Your task to perform on an android device: Find coffee shops on Maps Image 0: 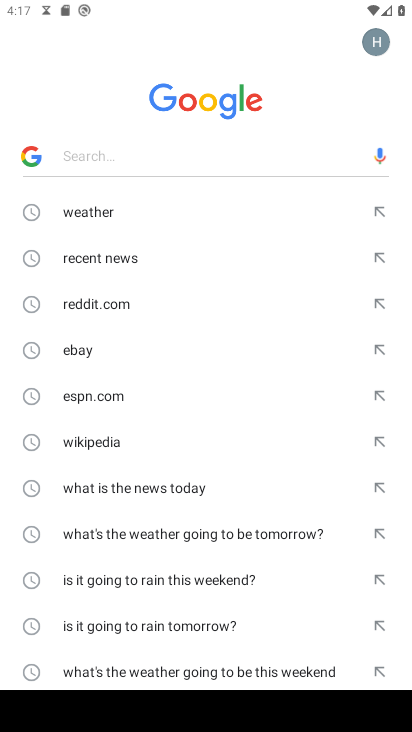
Step 0: press back button
Your task to perform on an android device: Find coffee shops on Maps Image 1: 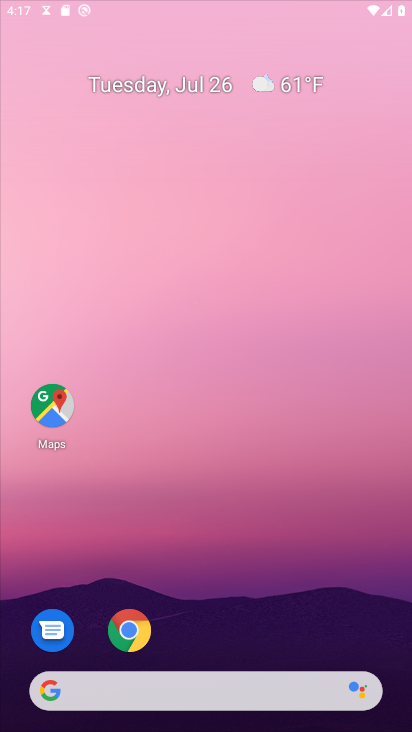
Step 1: press back button
Your task to perform on an android device: Find coffee shops on Maps Image 2: 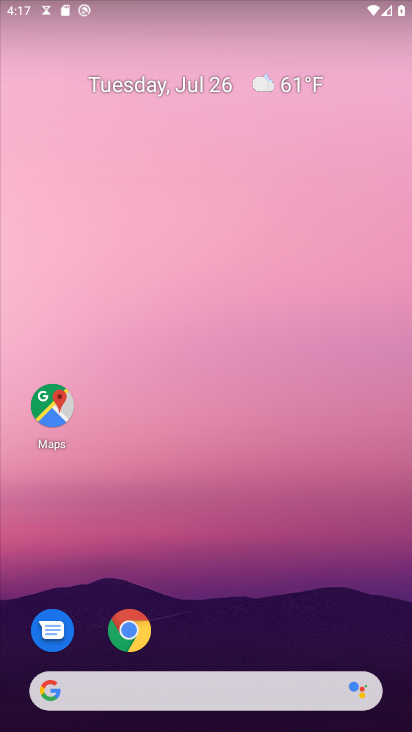
Step 2: drag from (267, 658) to (209, 149)
Your task to perform on an android device: Find coffee shops on Maps Image 3: 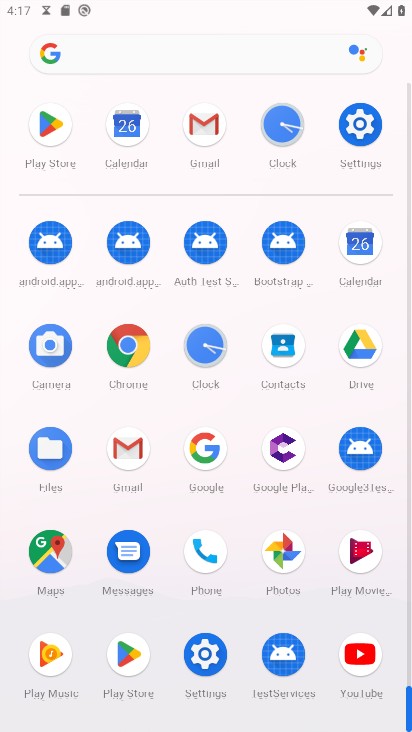
Step 3: drag from (221, 406) to (145, 112)
Your task to perform on an android device: Find coffee shops on Maps Image 4: 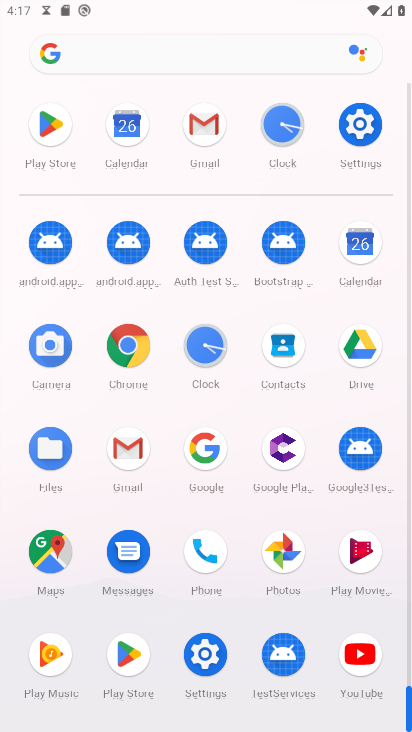
Step 4: click (49, 555)
Your task to perform on an android device: Find coffee shops on Maps Image 5: 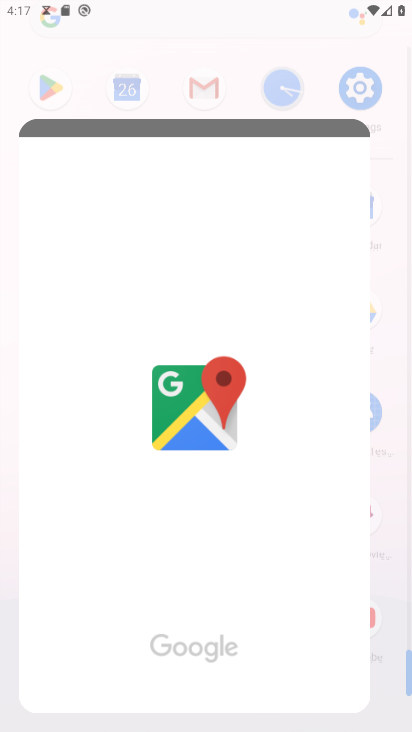
Step 5: click (46, 552)
Your task to perform on an android device: Find coffee shops on Maps Image 6: 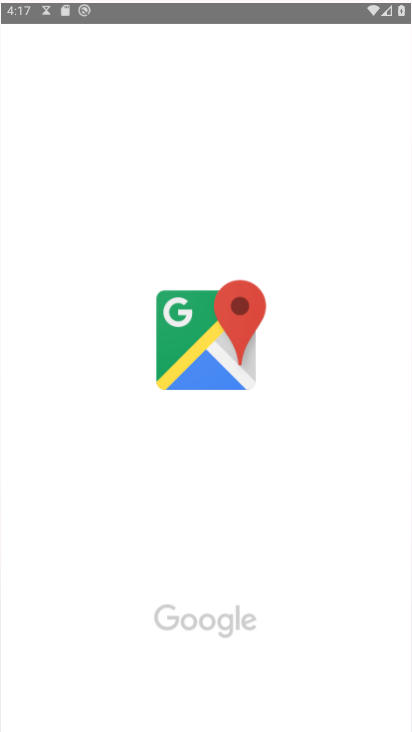
Step 6: click (45, 551)
Your task to perform on an android device: Find coffee shops on Maps Image 7: 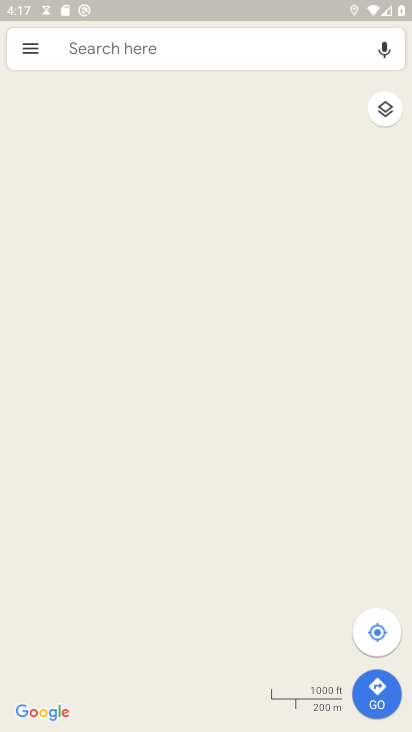
Step 7: click (70, 40)
Your task to perform on an android device: Find coffee shops on Maps Image 8: 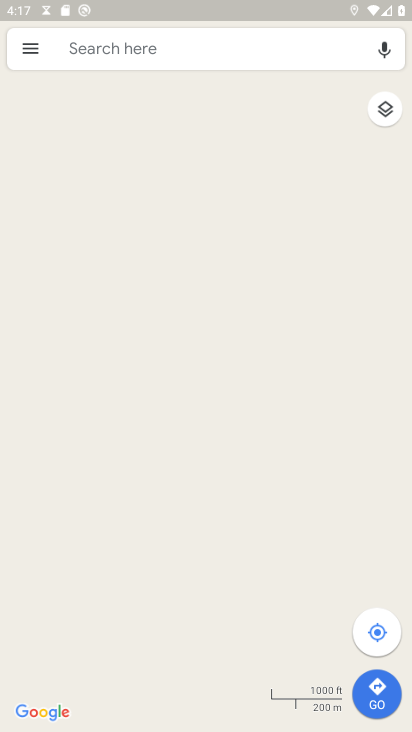
Step 8: click (76, 41)
Your task to perform on an android device: Find coffee shops on Maps Image 9: 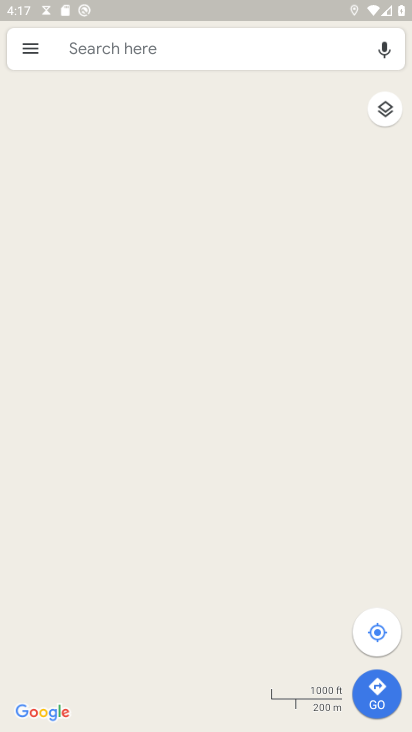
Step 9: click (77, 46)
Your task to perform on an android device: Find coffee shops on Maps Image 10: 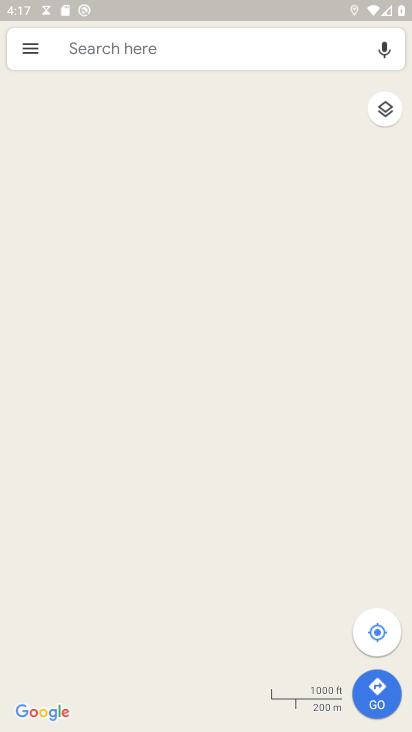
Step 10: click (76, 47)
Your task to perform on an android device: Find coffee shops on Maps Image 11: 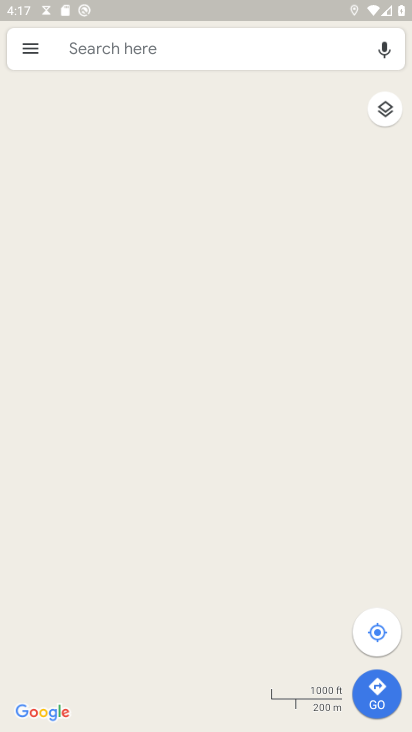
Step 11: click (78, 73)
Your task to perform on an android device: Find coffee shops on Maps Image 12: 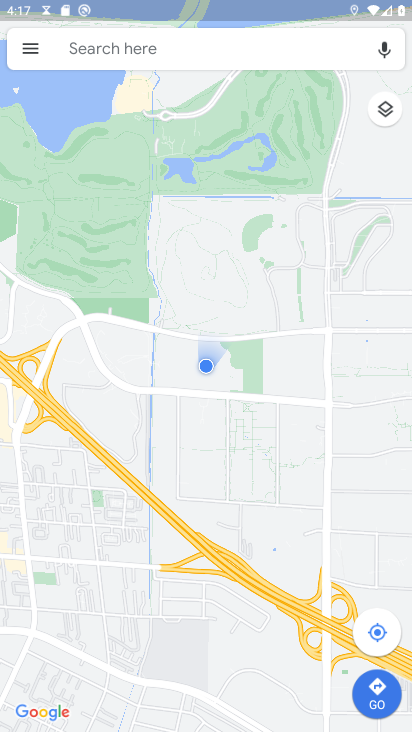
Step 12: click (82, 56)
Your task to perform on an android device: Find coffee shops on Maps Image 13: 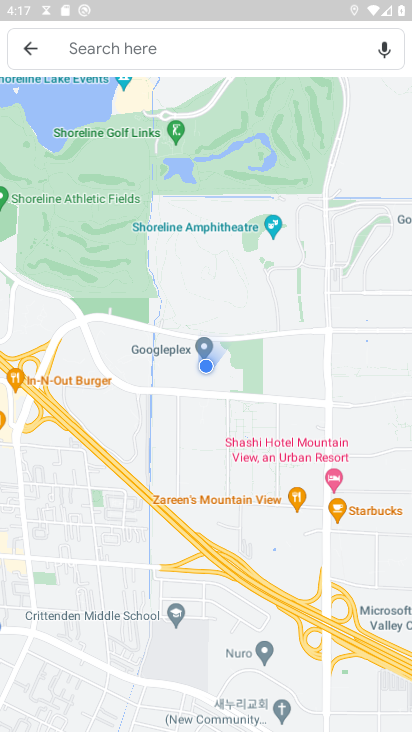
Step 13: click (82, 45)
Your task to perform on an android device: Find coffee shops on Maps Image 14: 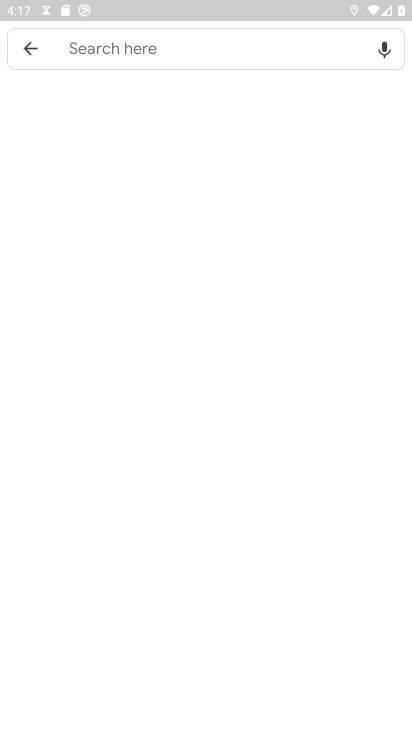
Step 14: click (82, 45)
Your task to perform on an android device: Find coffee shops on Maps Image 15: 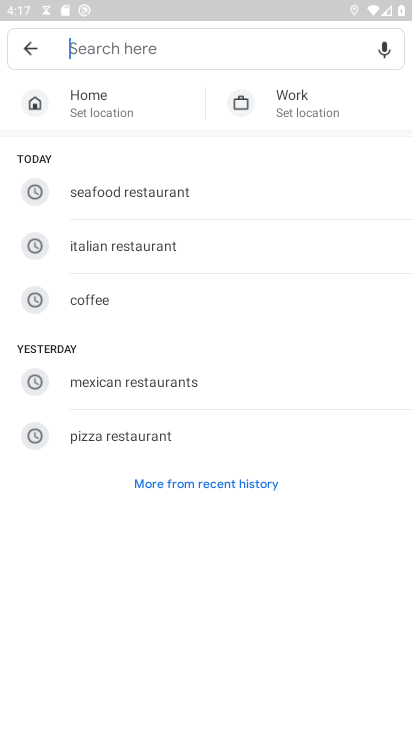
Step 15: click (83, 54)
Your task to perform on an android device: Find coffee shops on Maps Image 16: 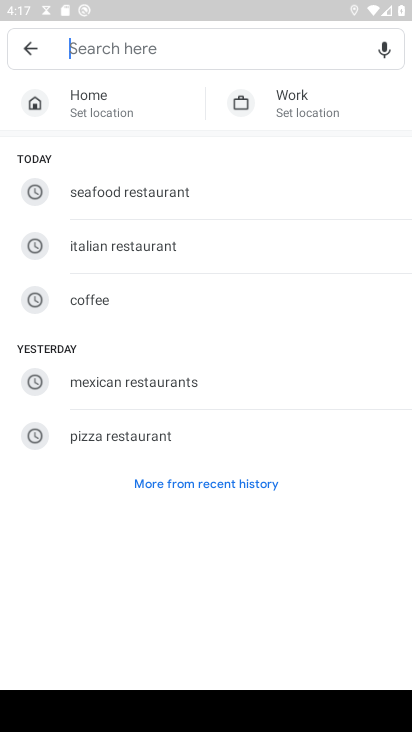
Step 16: click (100, 304)
Your task to perform on an android device: Find coffee shops on Maps Image 17: 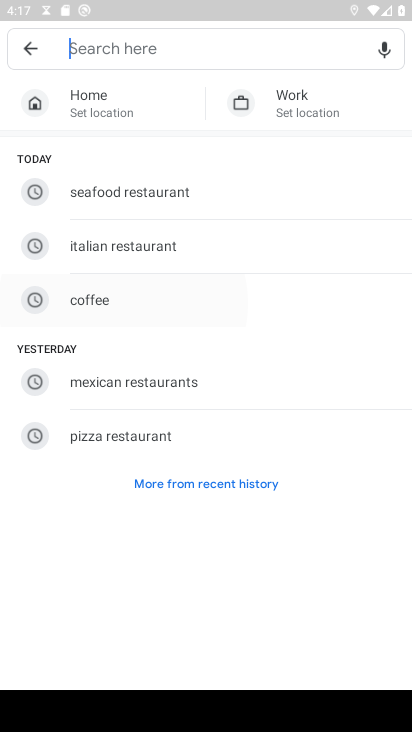
Step 17: click (100, 304)
Your task to perform on an android device: Find coffee shops on Maps Image 18: 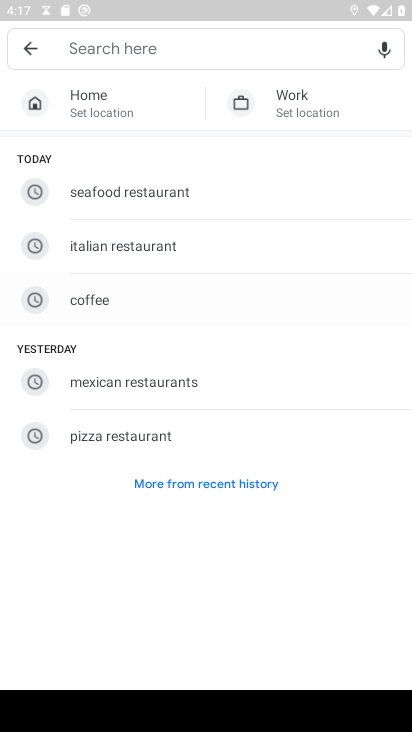
Step 18: click (98, 300)
Your task to perform on an android device: Find coffee shops on Maps Image 19: 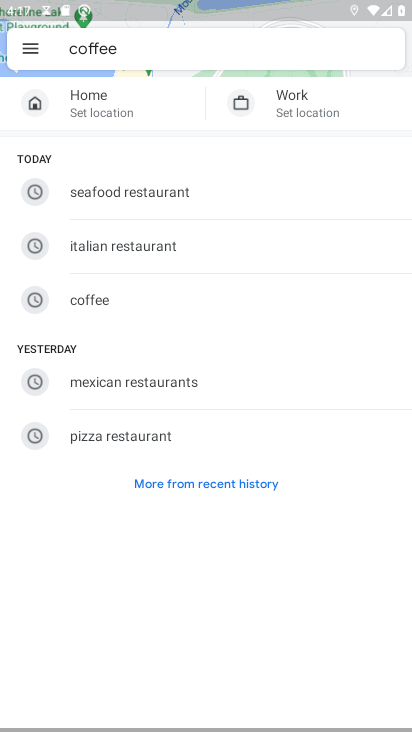
Step 19: click (98, 300)
Your task to perform on an android device: Find coffee shops on Maps Image 20: 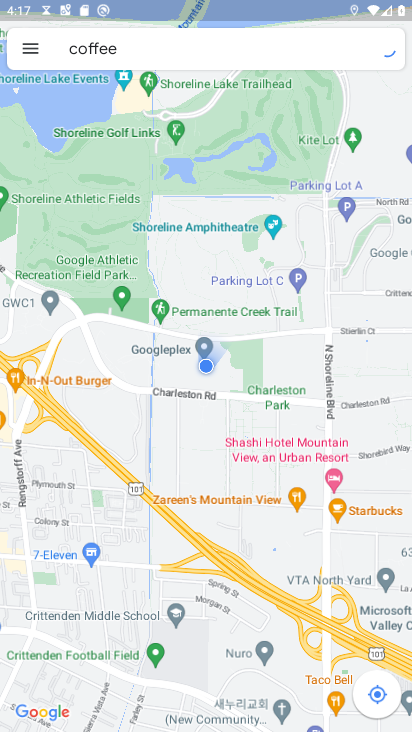
Step 20: task complete